Your task to perform on an android device: Empty the shopping cart on target.com. Add macbook pro 15 inch to the cart on target.com Image 0: 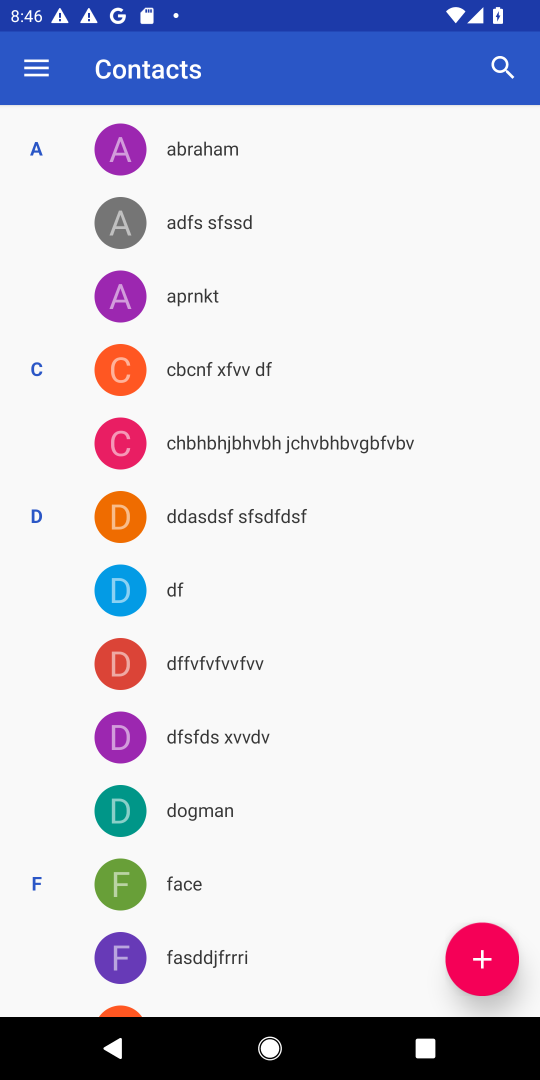
Step 0: press home button
Your task to perform on an android device: Empty the shopping cart on target.com. Add macbook pro 15 inch to the cart on target.com Image 1: 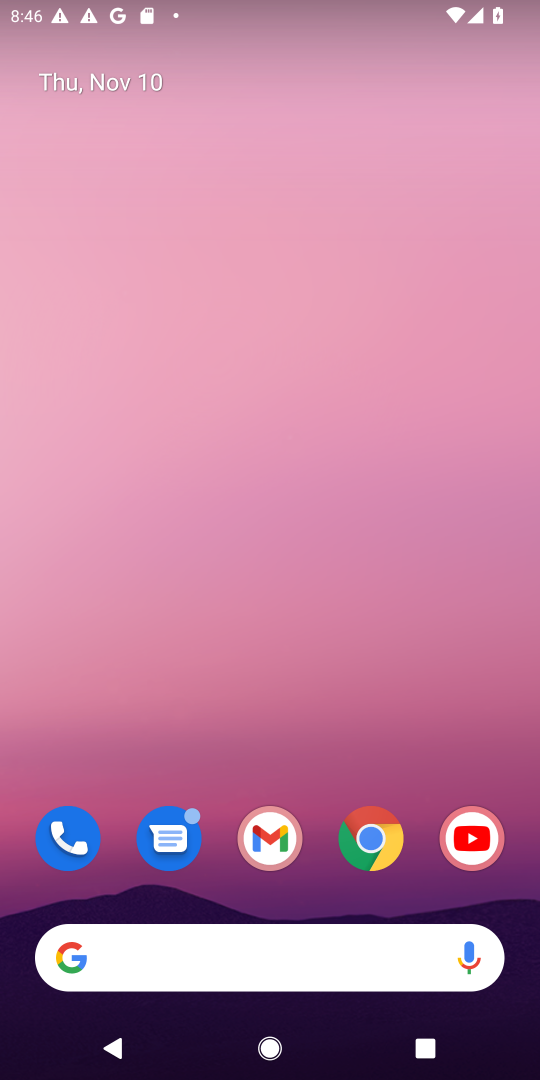
Step 1: drag from (321, 897) to (300, 47)
Your task to perform on an android device: Empty the shopping cart on target.com. Add macbook pro 15 inch to the cart on target.com Image 2: 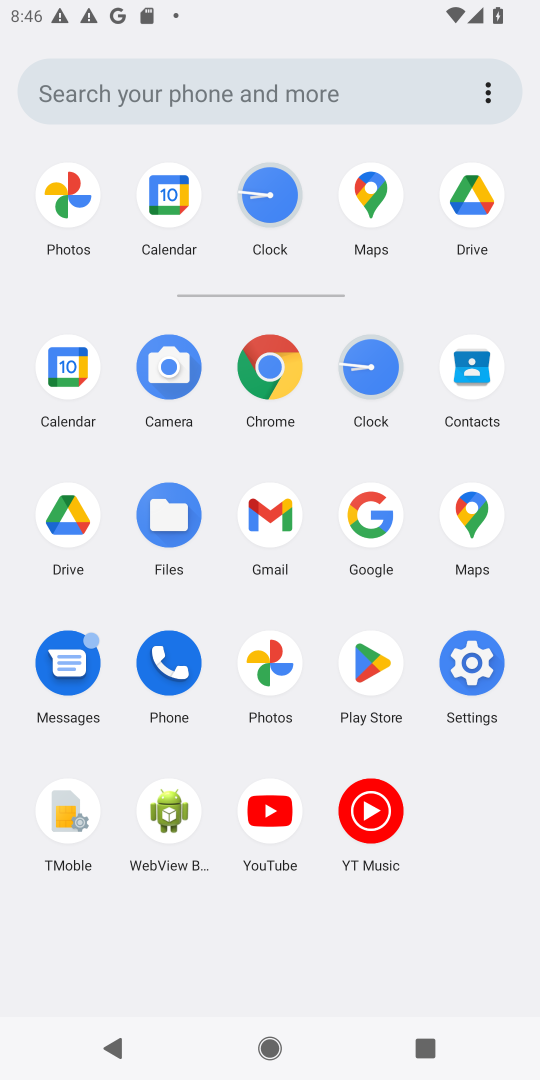
Step 2: click (267, 369)
Your task to perform on an android device: Empty the shopping cart on target.com. Add macbook pro 15 inch to the cart on target.com Image 3: 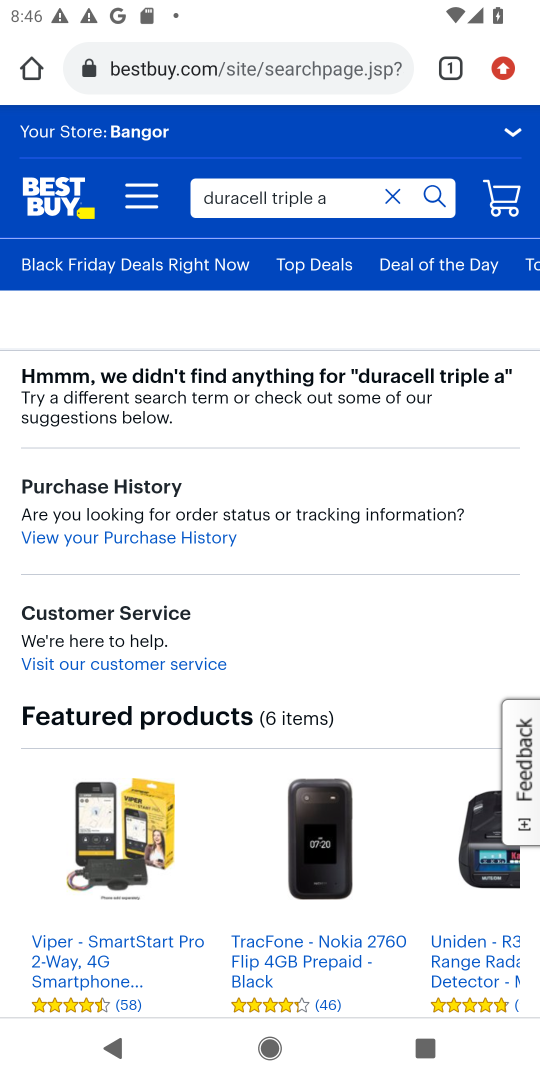
Step 3: click (245, 70)
Your task to perform on an android device: Empty the shopping cart on target.com. Add macbook pro 15 inch to the cart on target.com Image 4: 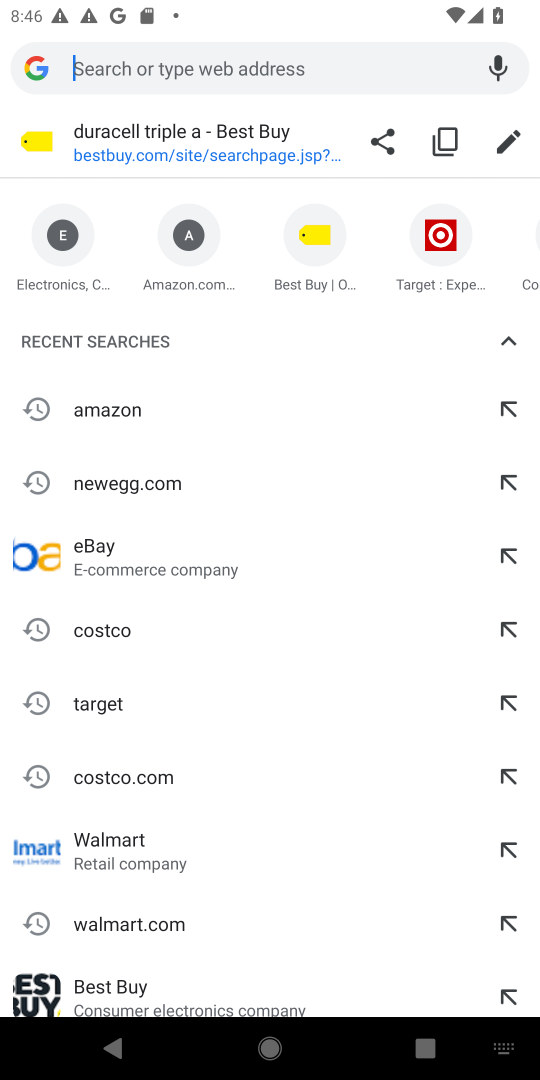
Step 4: type "target.com"
Your task to perform on an android device: Empty the shopping cart on target.com. Add macbook pro 15 inch to the cart on target.com Image 5: 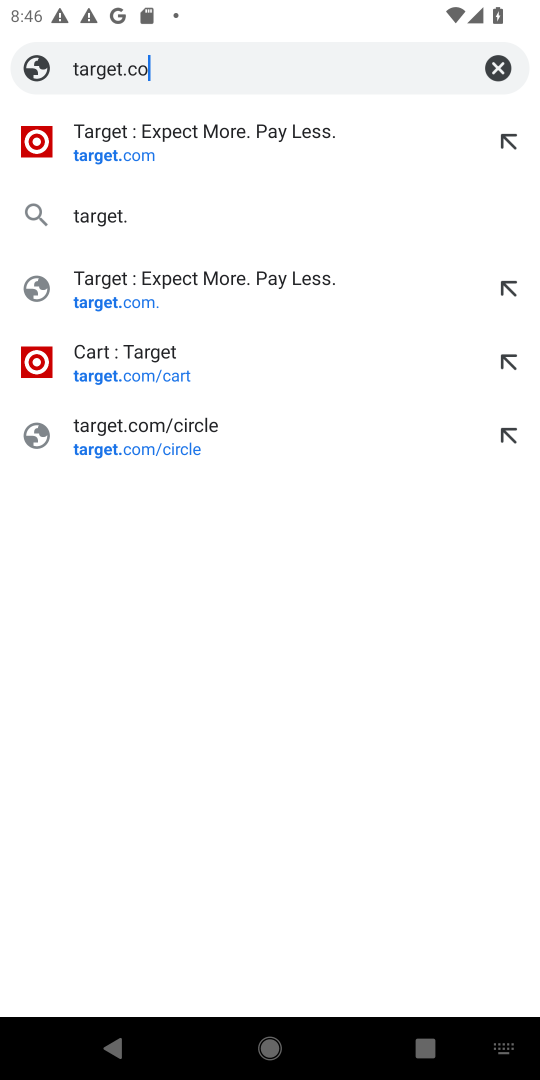
Step 5: press enter
Your task to perform on an android device: Empty the shopping cart on target.com. Add macbook pro 15 inch to the cart on target.com Image 6: 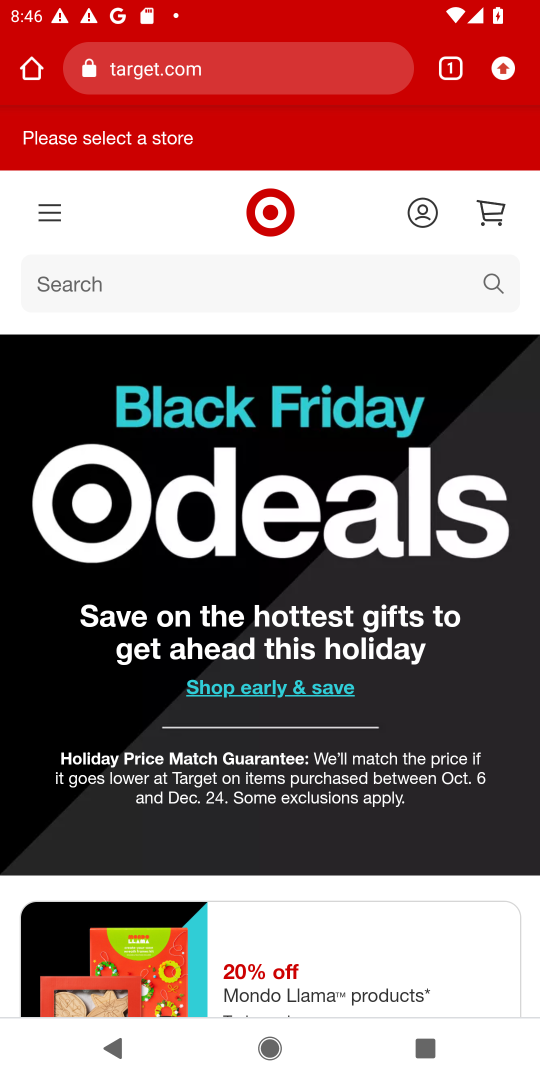
Step 6: click (493, 223)
Your task to perform on an android device: Empty the shopping cart on target.com. Add macbook pro 15 inch to the cart on target.com Image 7: 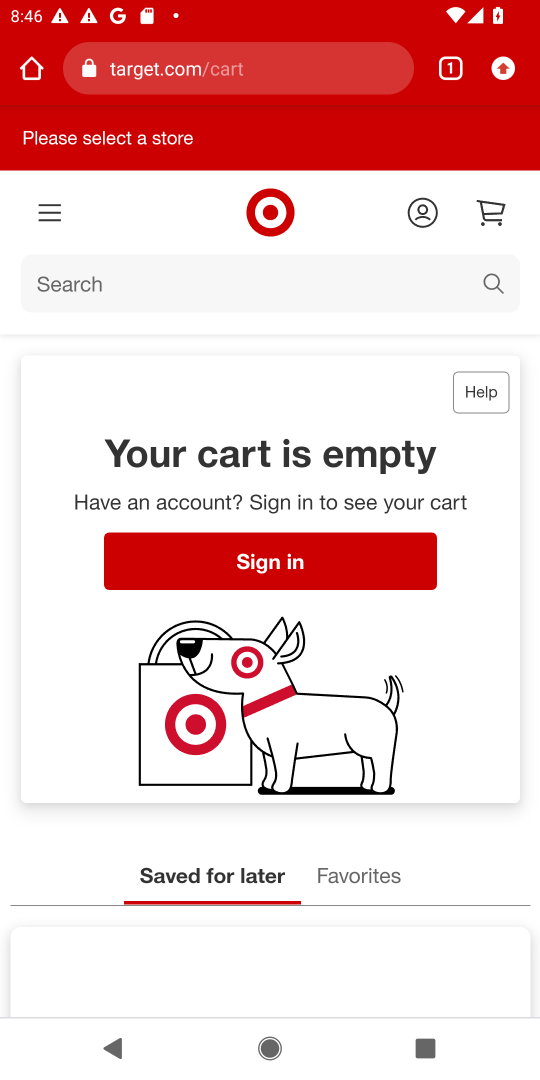
Step 7: click (204, 298)
Your task to perform on an android device: Empty the shopping cart on target.com. Add macbook pro 15 inch to the cart on target.com Image 8: 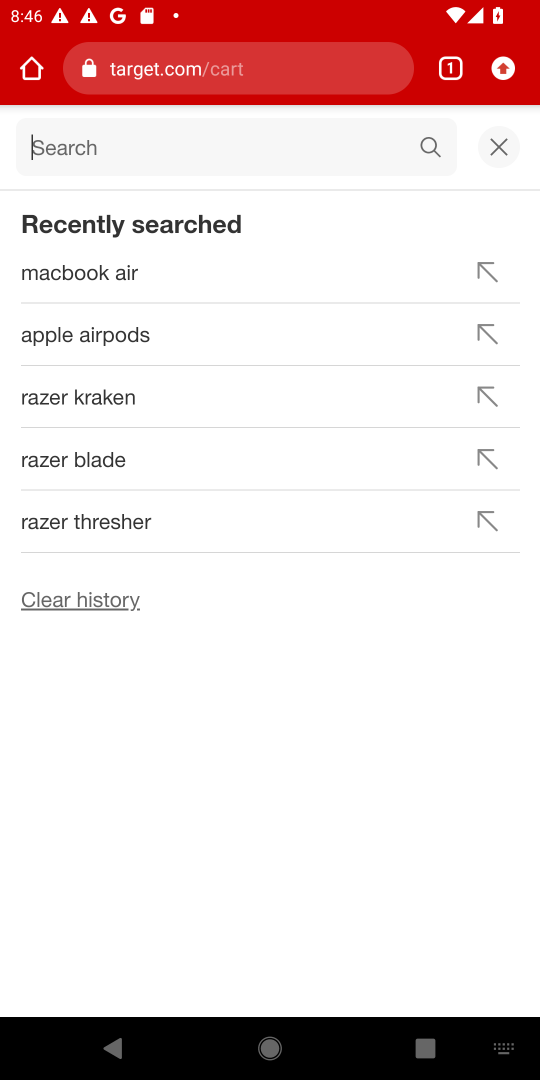
Step 8: type "macbook pro 15 inch"
Your task to perform on an android device: Empty the shopping cart on target.com. Add macbook pro 15 inch to the cart on target.com Image 9: 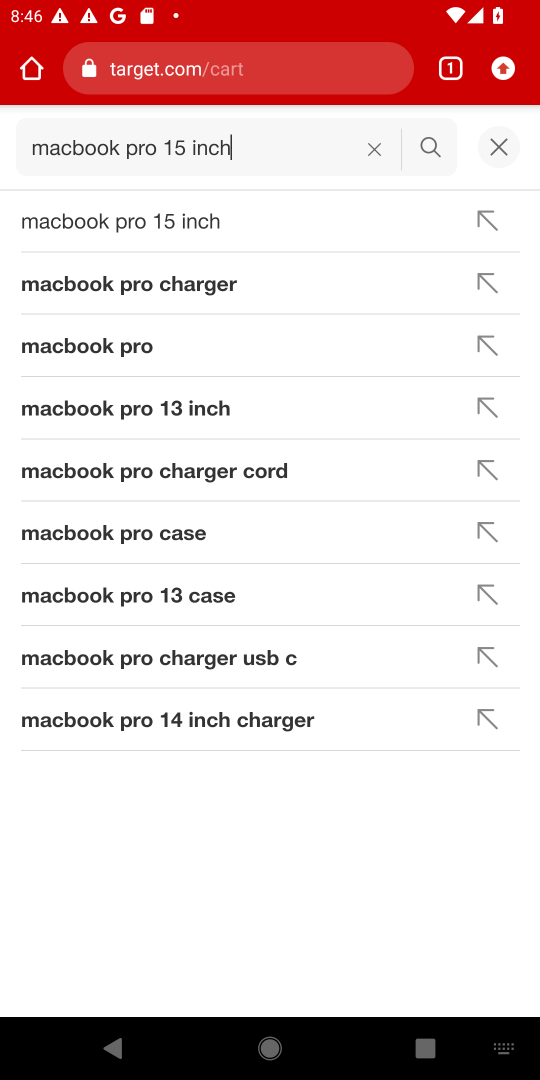
Step 9: press enter
Your task to perform on an android device: Empty the shopping cart on target.com. Add macbook pro 15 inch to the cart on target.com Image 10: 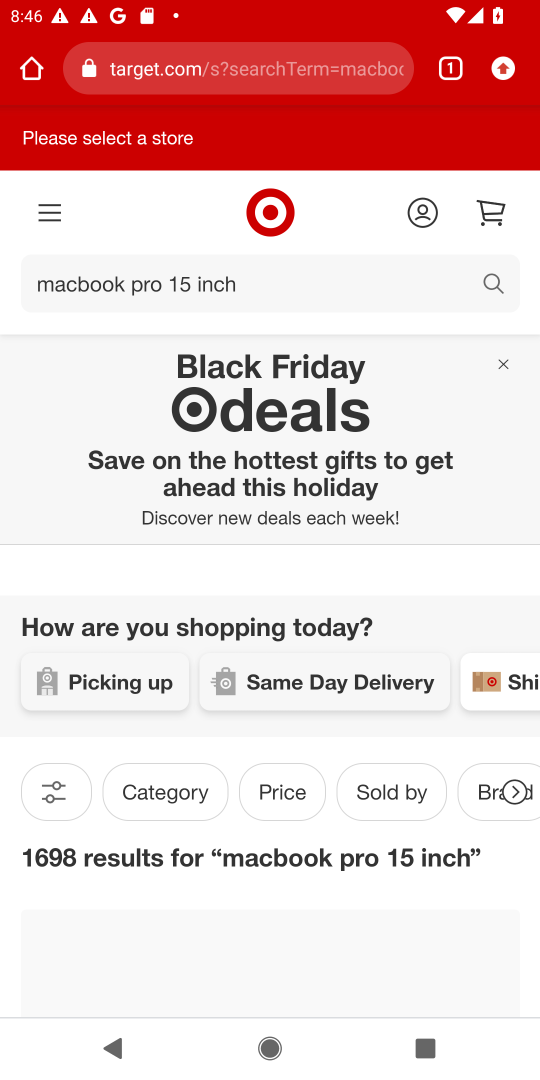
Step 10: task complete